Your task to perform on an android device: change the clock display to digital Image 0: 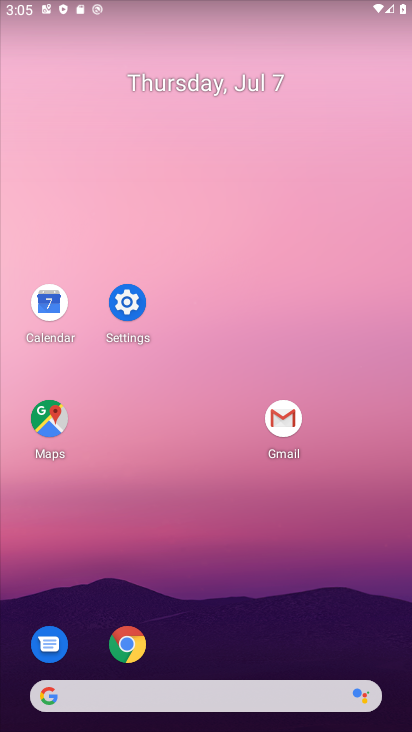
Step 0: drag from (397, 685) to (350, 132)
Your task to perform on an android device: change the clock display to digital Image 1: 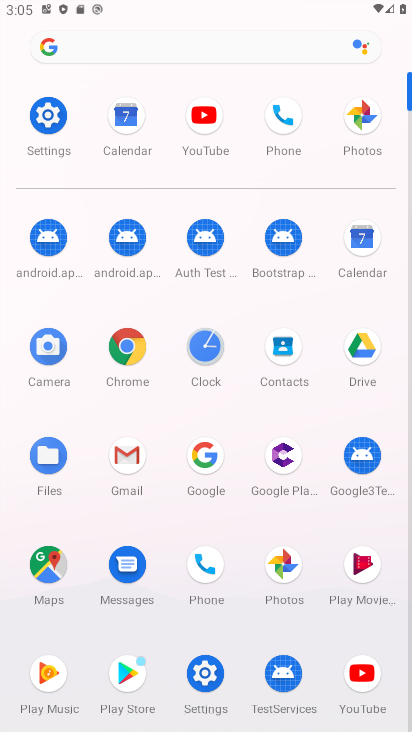
Step 1: click (196, 349)
Your task to perform on an android device: change the clock display to digital Image 2: 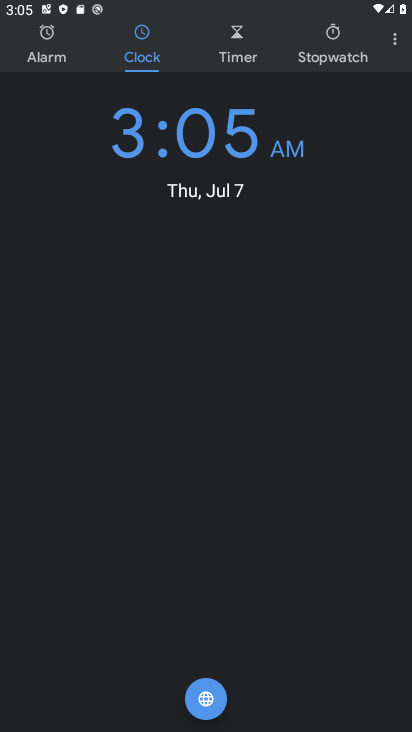
Step 2: click (394, 38)
Your task to perform on an android device: change the clock display to digital Image 3: 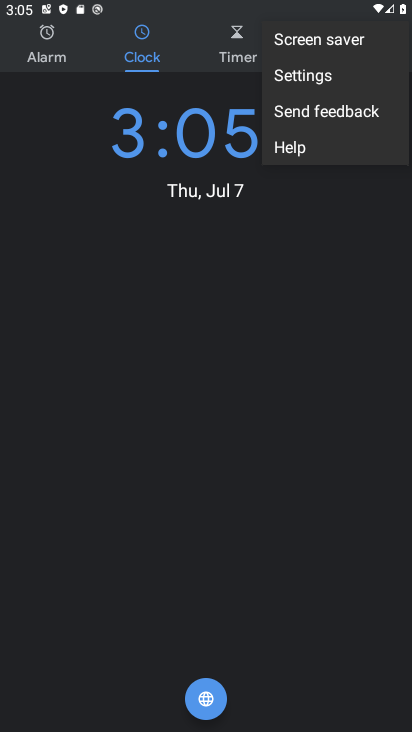
Step 3: click (289, 82)
Your task to perform on an android device: change the clock display to digital Image 4: 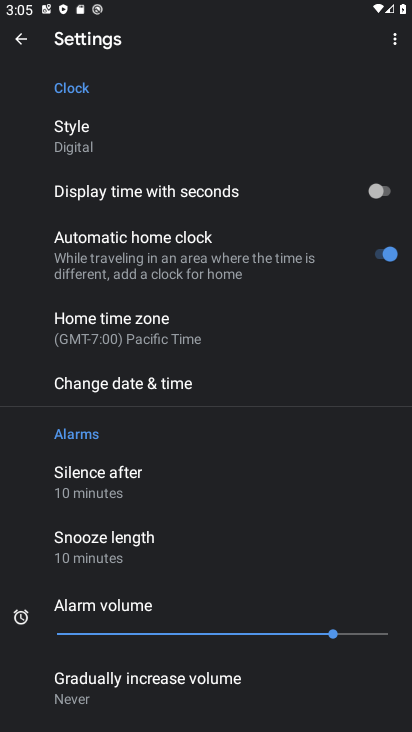
Step 4: task complete